Your task to perform on an android device: Open Google Image 0: 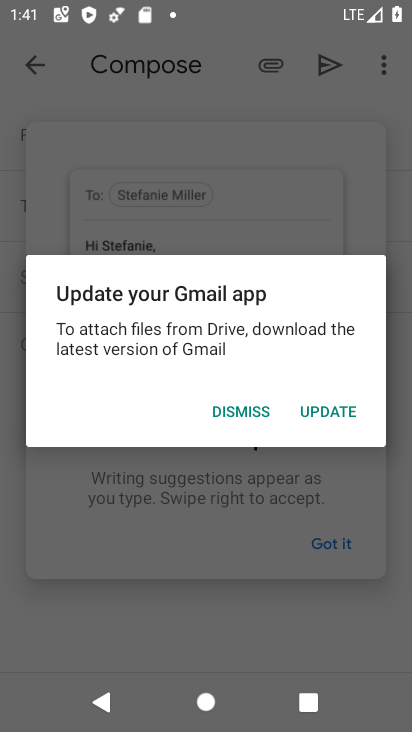
Step 0: press home button
Your task to perform on an android device: Open Google Image 1: 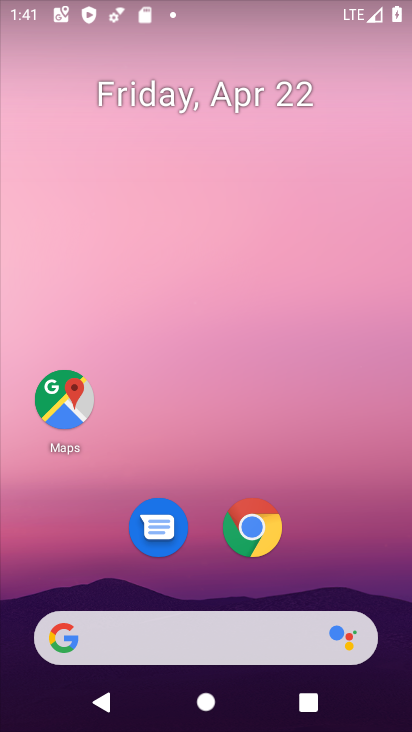
Step 1: drag from (320, 419) to (244, 15)
Your task to perform on an android device: Open Google Image 2: 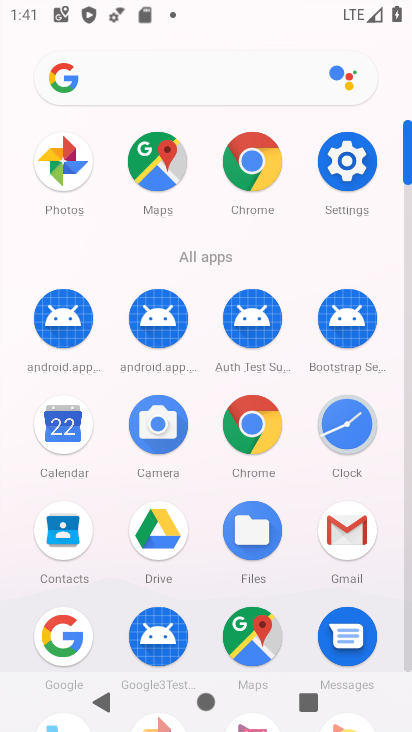
Step 2: click (62, 627)
Your task to perform on an android device: Open Google Image 3: 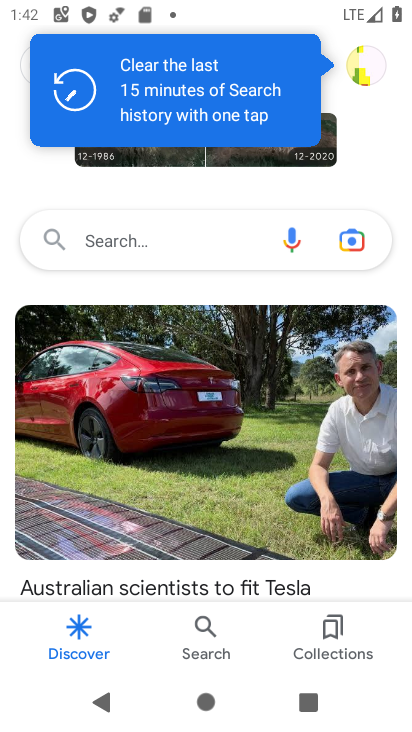
Step 3: task complete